Your task to perform on an android device: Is it going to rain this weekend? Image 0: 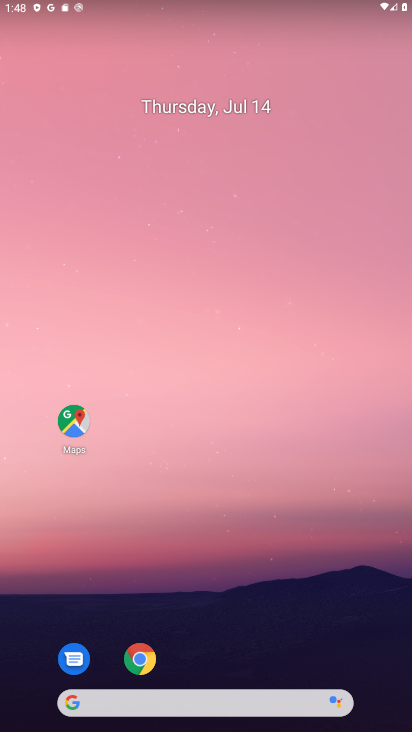
Step 0: drag from (254, 668) to (203, 167)
Your task to perform on an android device: Is it going to rain this weekend? Image 1: 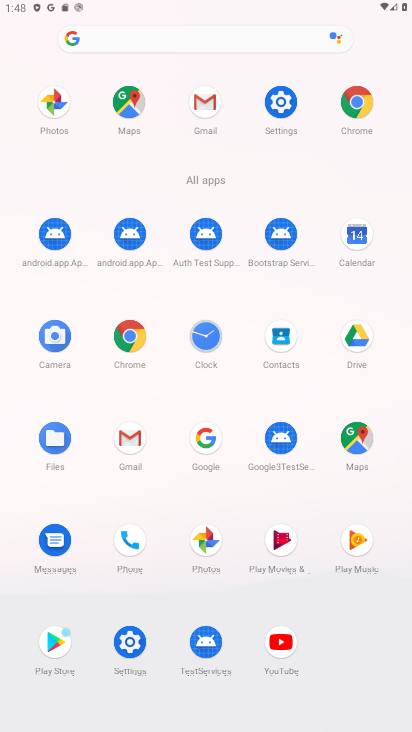
Step 1: click (209, 441)
Your task to perform on an android device: Is it going to rain this weekend? Image 2: 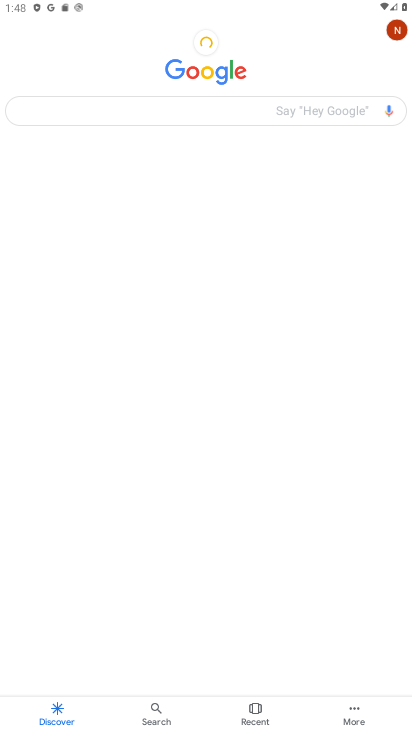
Step 2: click (150, 103)
Your task to perform on an android device: Is it going to rain this weekend? Image 3: 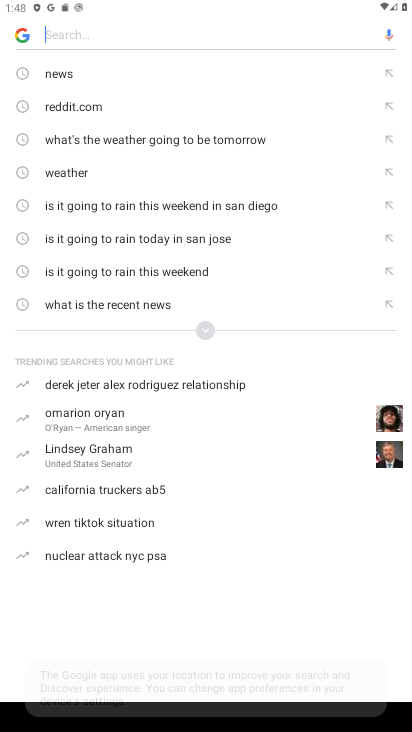
Step 3: click (81, 165)
Your task to perform on an android device: Is it going to rain this weekend? Image 4: 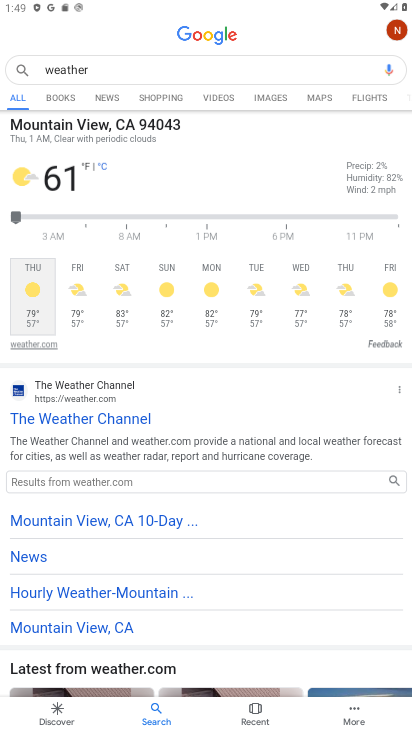
Step 4: task complete